Your task to perform on an android device: Open battery settings Image 0: 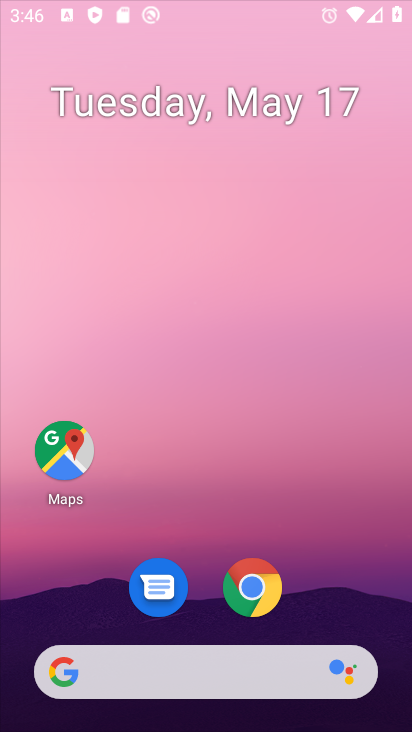
Step 0: click (218, 278)
Your task to perform on an android device: Open battery settings Image 1: 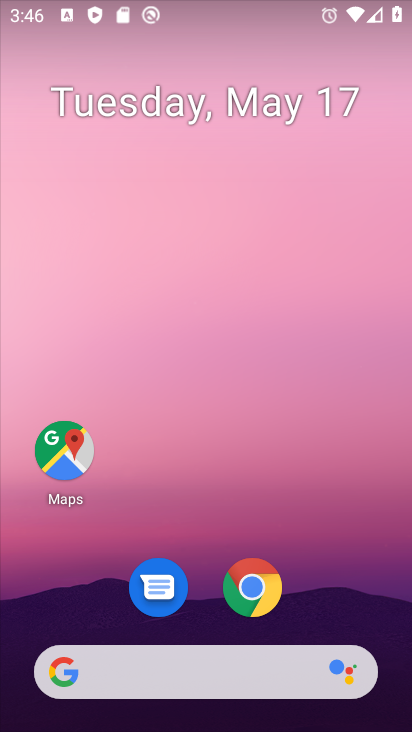
Step 1: drag from (211, 619) to (244, 0)
Your task to perform on an android device: Open battery settings Image 2: 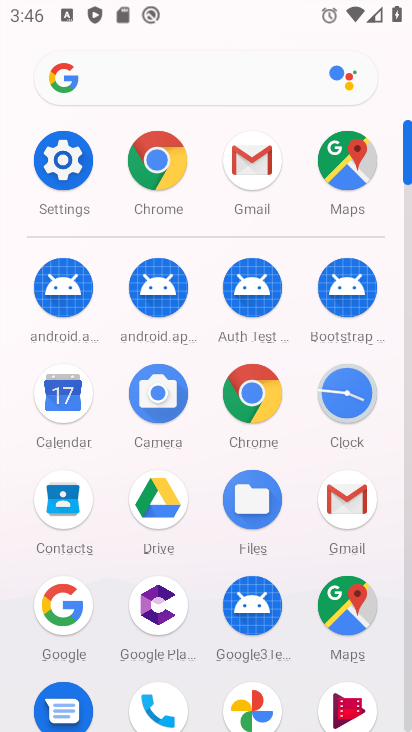
Step 2: click (57, 155)
Your task to perform on an android device: Open battery settings Image 3: 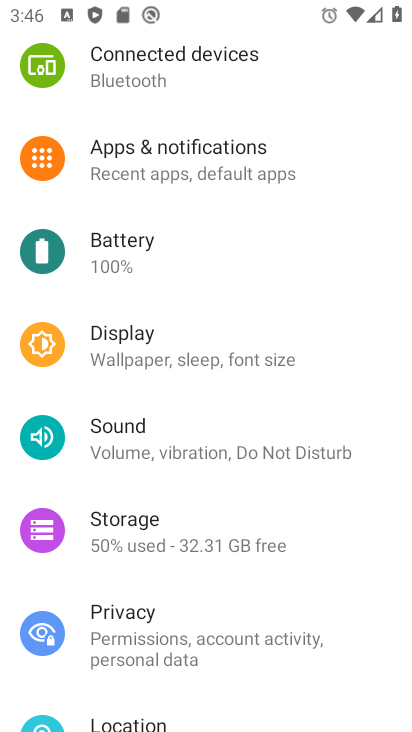
Step 3: click (141, 247)
Your task to perform on an android device: Open battery settings Image 4: 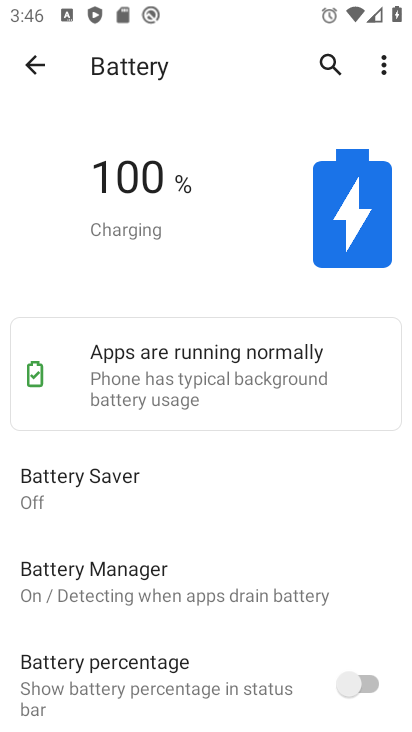
Step 4: click (387, 57)
Your task to perform on an android device: Open battery settings Image 5: 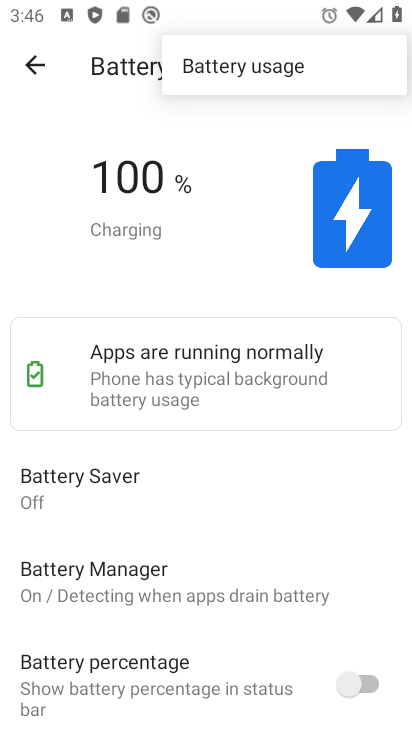
Step 5: click (241, 190)
Your task to perform on an android device: Open battery settings Image 6: 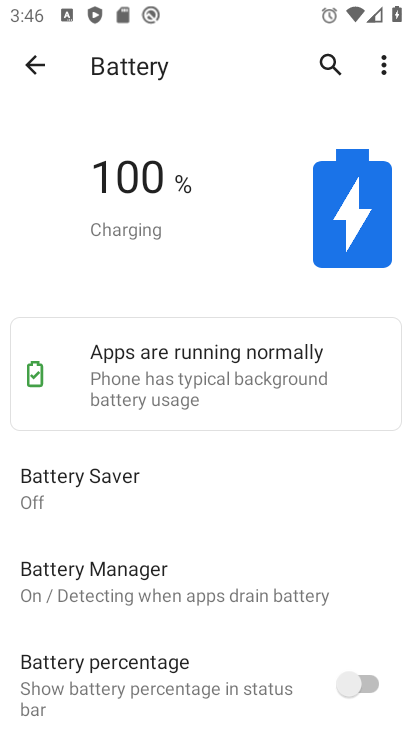
Step 6: task complete